Your task to perform on an android device: Go to Maps Image 0: 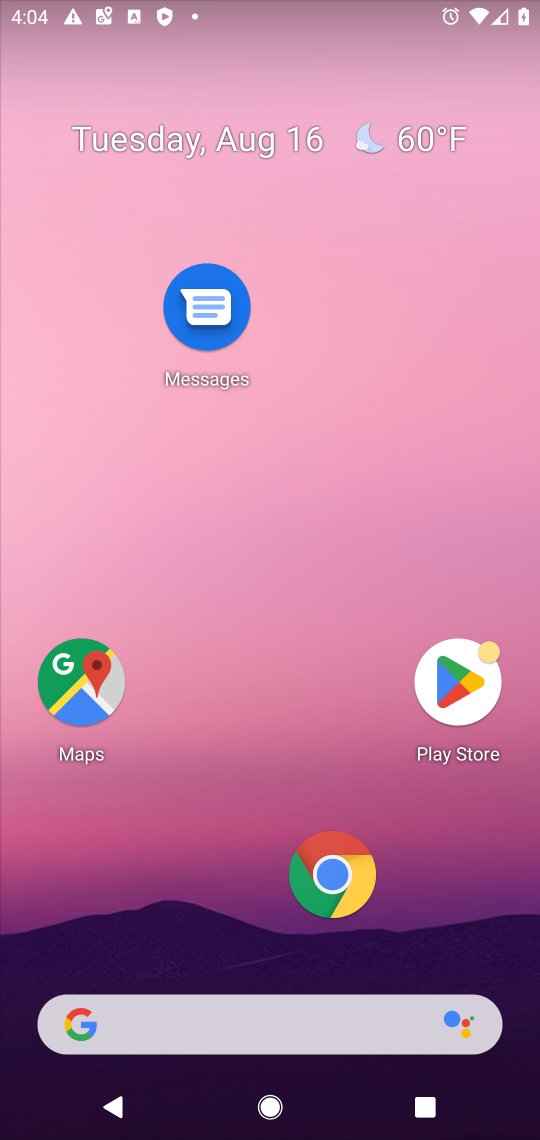
Step 0: click (92, 681)
Your task to perform on an android device: Go to Maps Image 1: 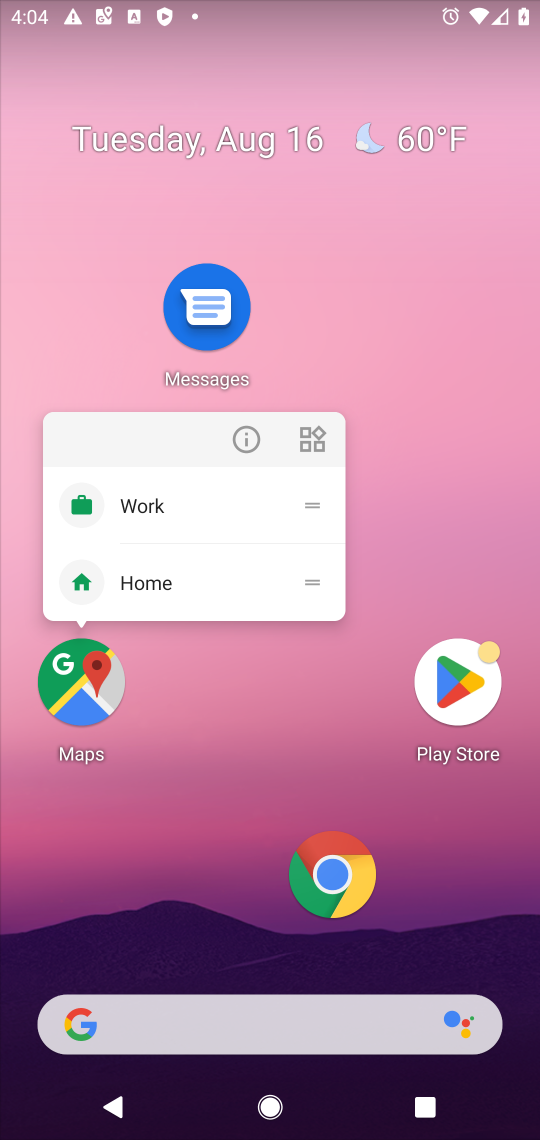
Step 1: click (81, 674)
Your task to perform on an android device: Go to Maps Image 2: 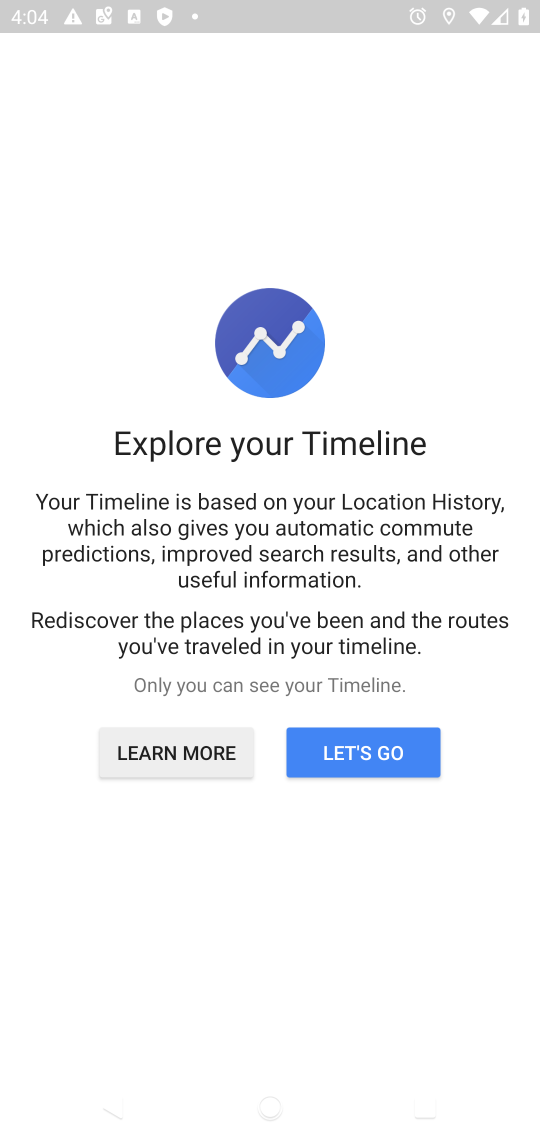
Step 2: task complete